Your task to perform on an android device: What's the weather going to be this weekend? Image 0: 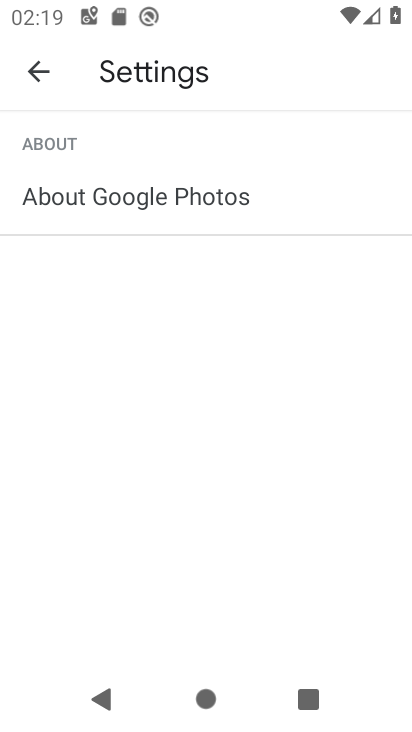
Step 0: press home button
Your task to perform on an android device: What's the weather going to be this weekend? Image 1: 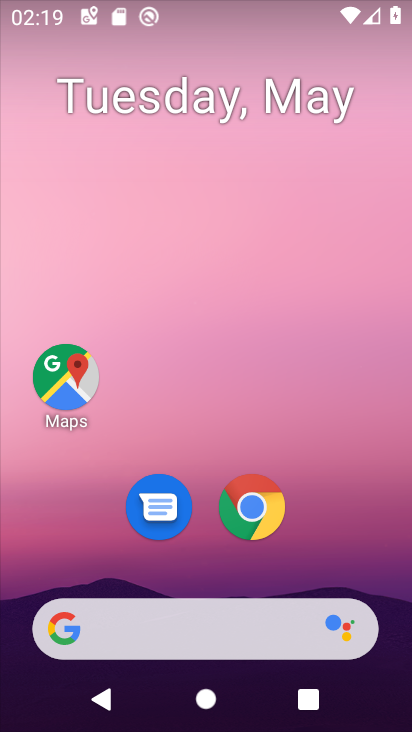
Step 1: drag from (213, 552) to (210, 197)
Your task to perform on an android device: What's the weather going to be this weekend? Image 2: 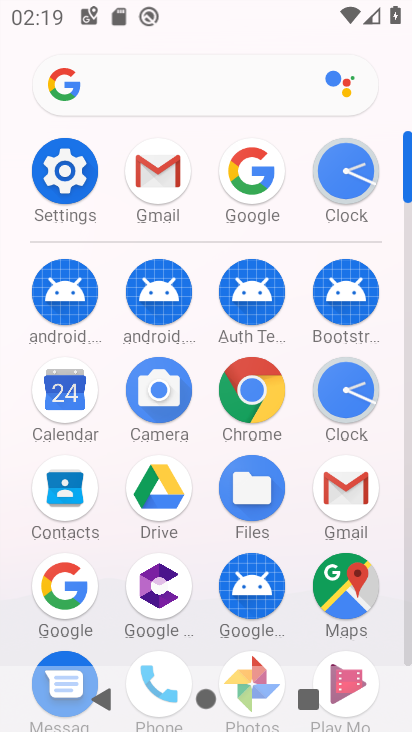
Step 2: click (68, 563)
Your task to perform on an android device: What's the weather going to be this weekend? Image 3: 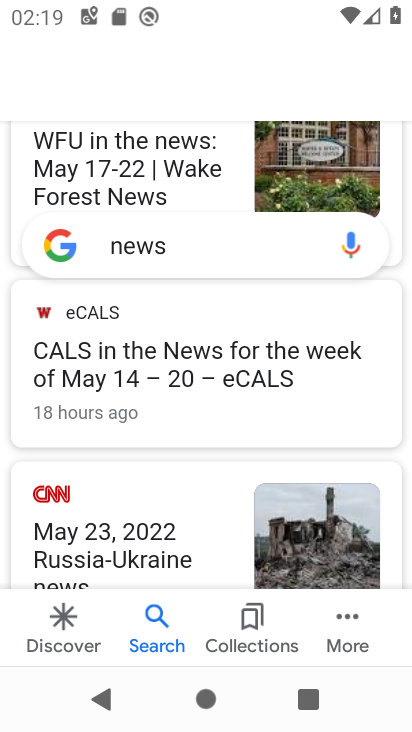
Step 3: drag from (125, 183) to (137, 462)
Your task to perform on an android device: What's the weather going to be this weekend? Image 4: 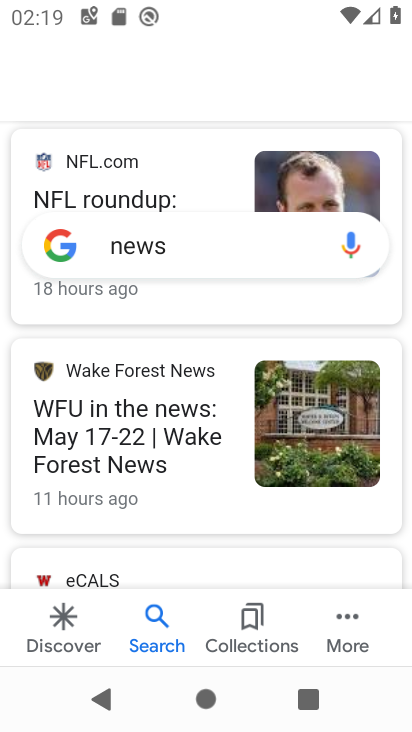
Step 4: drag from (114, 247) to (114, 495)
Your task to perform on an android device: What's the weather going to be this weekend? Image 5: 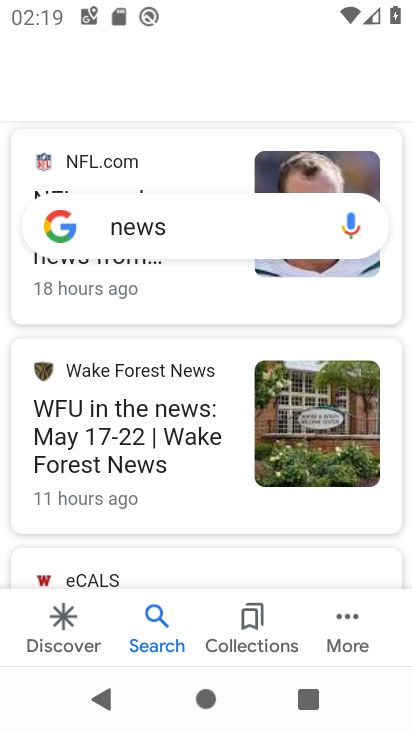
Step 5: drag from (125, 293) to (135, 543)
Your task to perform on an android device: What's the weather going to be this weekend? Image 6: 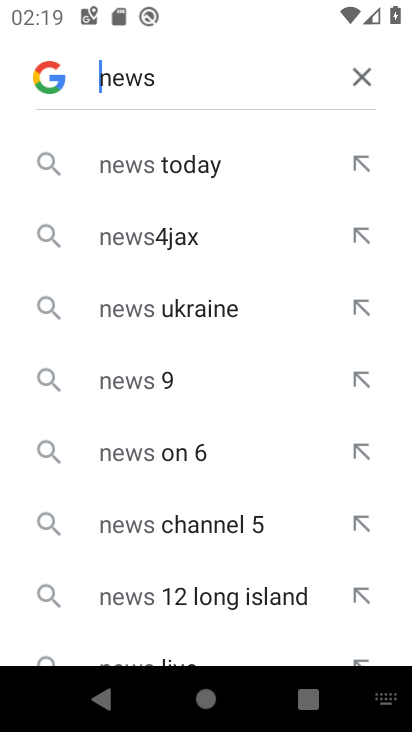
Step 6: click (359, 73)
Your task to perform on an android device: What's the weather going to be this weekend? Image 7: 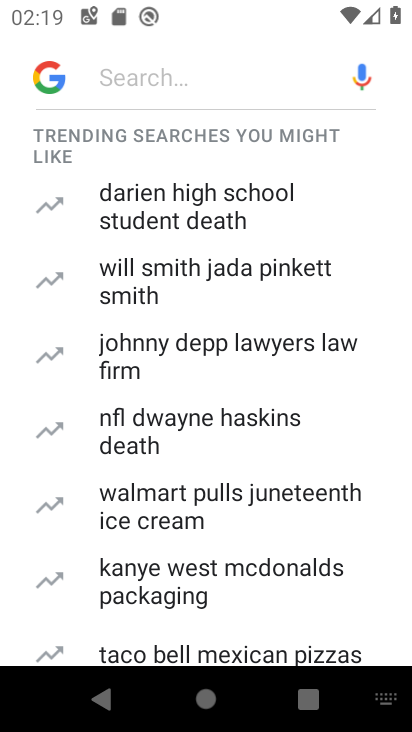
Step 7: type "weather"
Your task to perform on an android device: What's the weather going to be this weekend? Image 8: 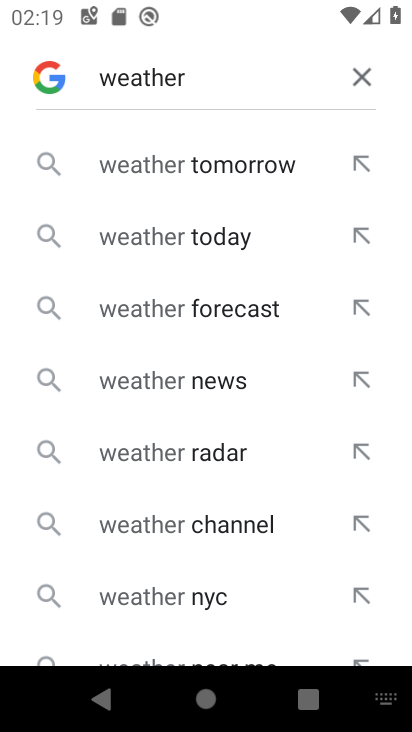
Step 8: click (220, 242)
Your task to perform on an android device: What's the weather going to be this weekend? Image 9: 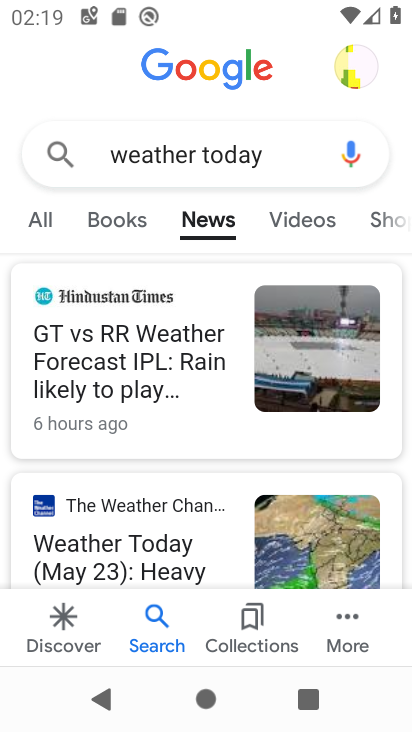
Step 9: click (55, 217)
Your task to perform on an android device: What's the weather going to be this weekend? Image 10: 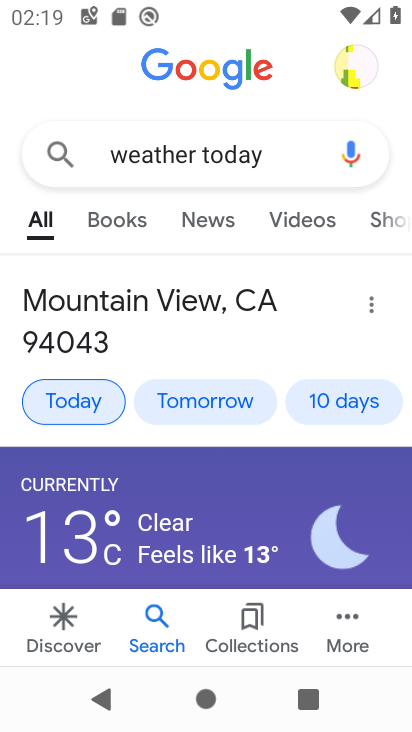
Step 10: click (352, 391)
Your task to perform on an android device: What's the weather going to be this weekend? Image 11: 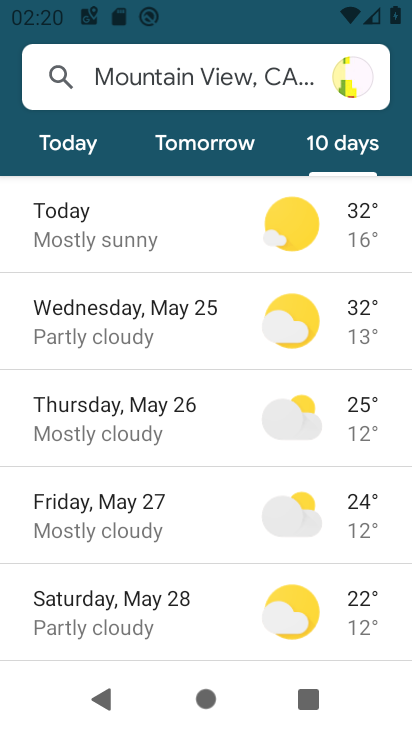
Step 11: task complete